Your task to perform on an android device: Open Maps and search for coffee Image 0: 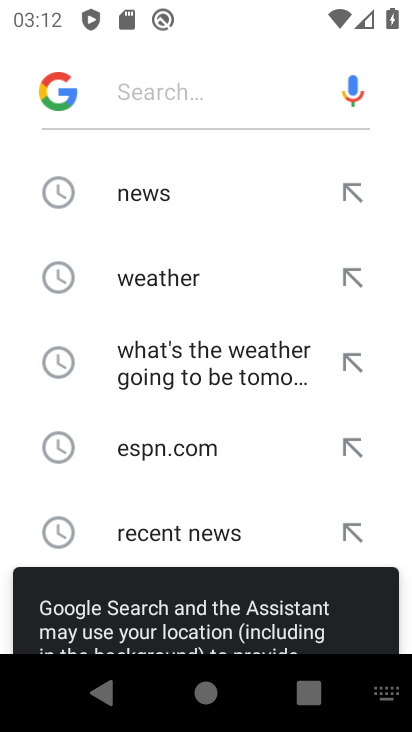
Step 0: press home button
Your task to perform on an android device: Open Maps and search for coffee Image 1: 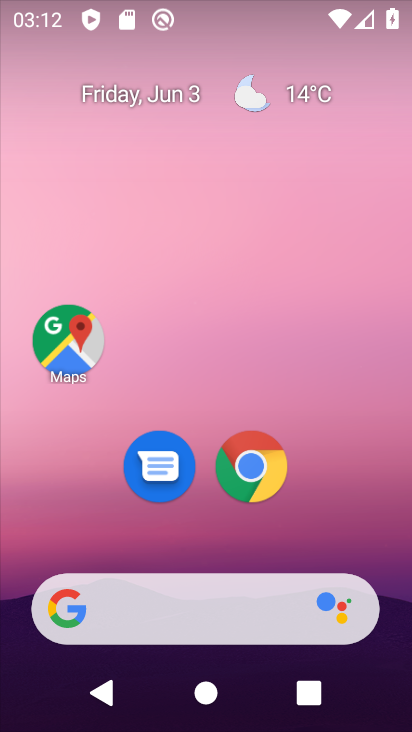
Step 1: click (67, 334)
Your task to perform on an android device: Open Maps and search for coffee Image 2: 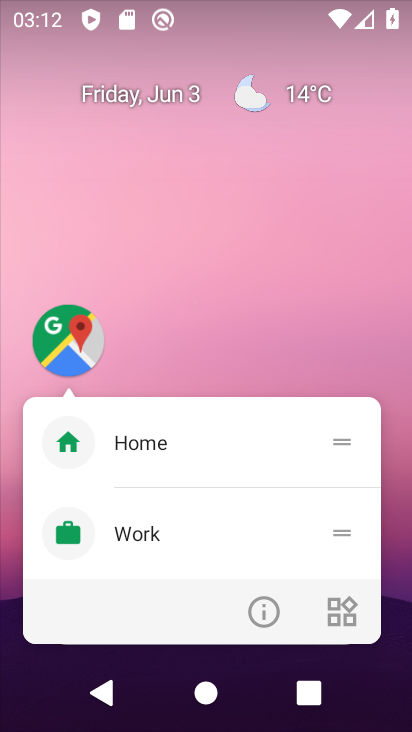
Step 2: click (171, 299)
Your task to perform on an android device: Open Maps and search for coffee Image 3: 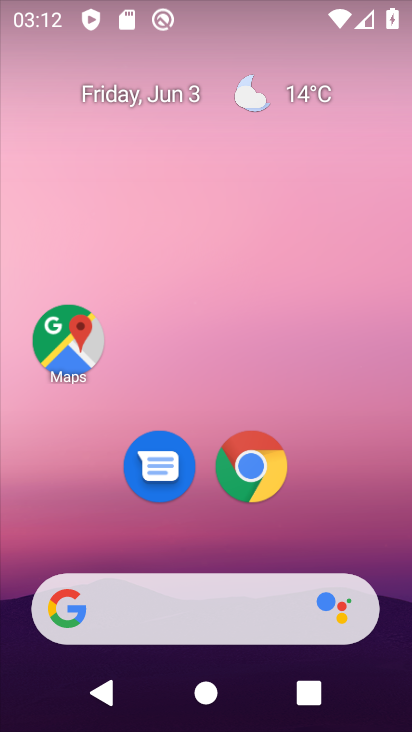
Step 3: click (67, 333)
Your task to perform on an android device: Open Maps and search for coffee Image 4: 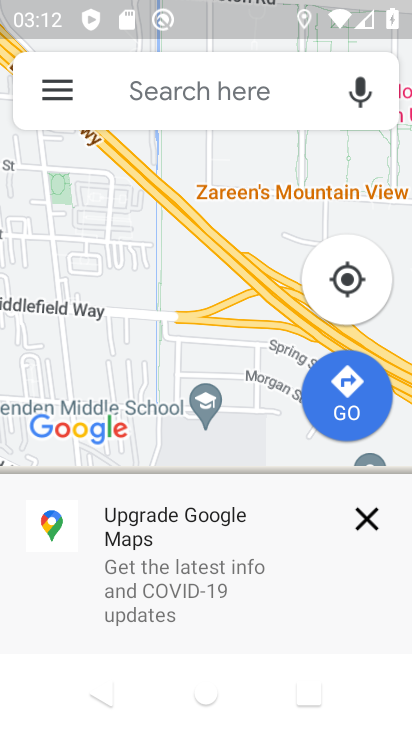
Step 4: click (154, 85)
Your task to perform on an android device: Open Maps and search for coffee Image 5: 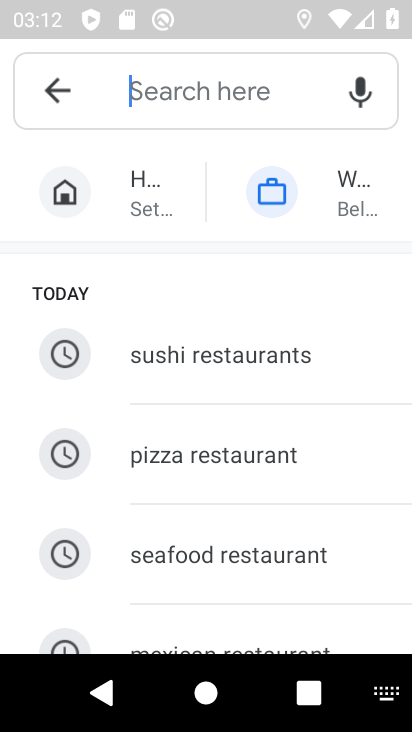
Step 5: type "coffee"
Your task to perform on an android device: Open Maps and search for coffee Image 6: 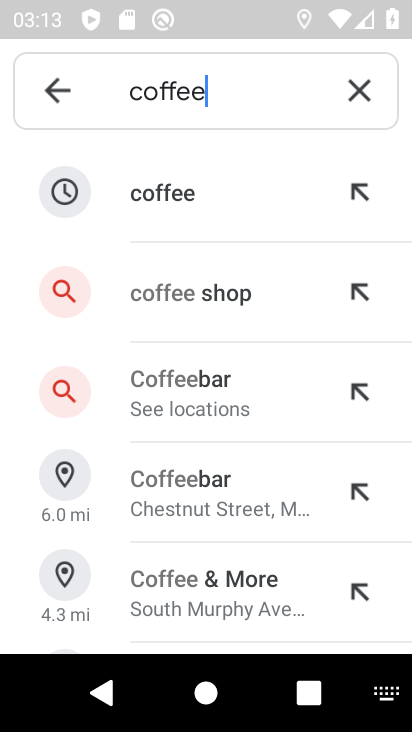
Step 6: click (187, 194)
Your task to perform on an android device: Open Maps and search for coffee Image 7: 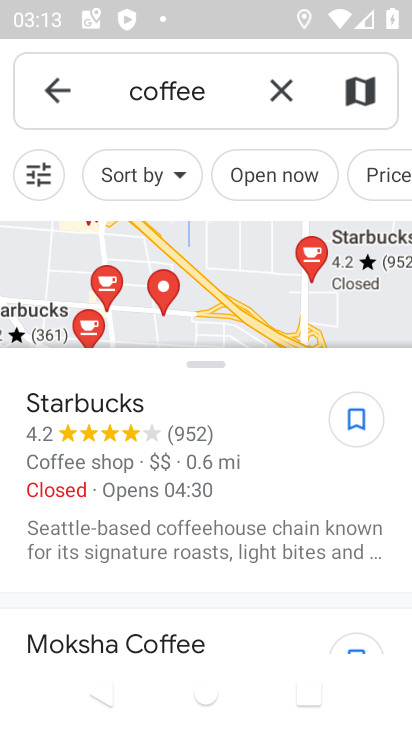
Step 7: task complete